Your task to perform on an android device: open app "Instagram" (install if not already installed) Image 0: 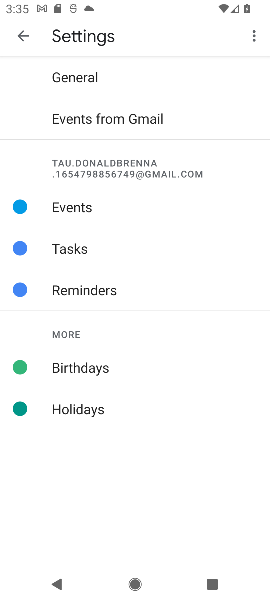
Step 0: press home button
Your task to perform on an android device: open app "Instagram" (install if not already installed) Image 1: 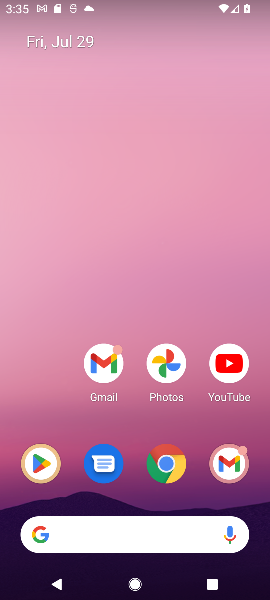
Step 1: drag from (91, 530) to (171, 134)
Your task to perform on an android device: open app "Instagram" (install if not already installed) Image 2: 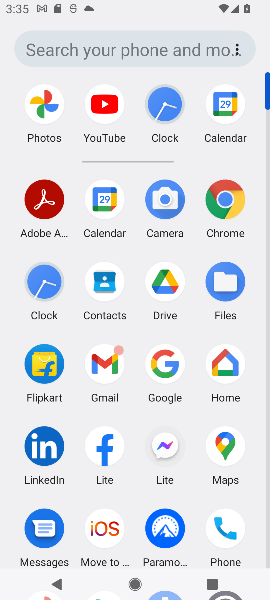
Step 2: drag from (133, 450) to (149, 265)
Your task to perform on an android device: open app "Instagram" (install if not already installed) Image 3: 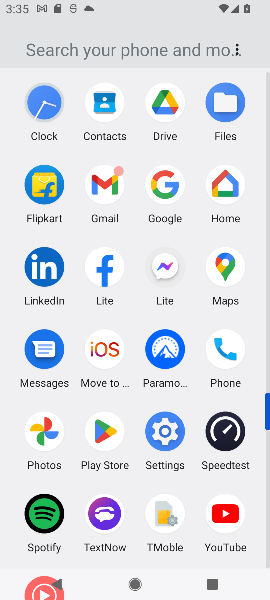
Step 3: click (101, 434)
Your task to perform on an android device: open app "Instagram" (install if not already installed) Image 4: 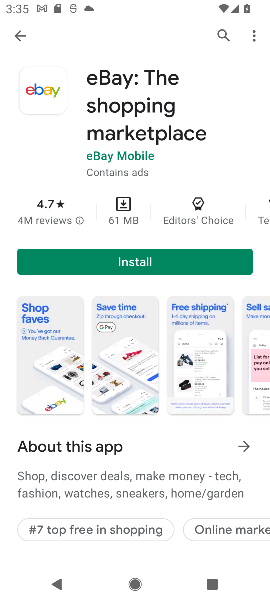
Step 4: click (221, 36)
Your task to perform on an android device: open app "Instagram" (install if not already installed) Image 5: 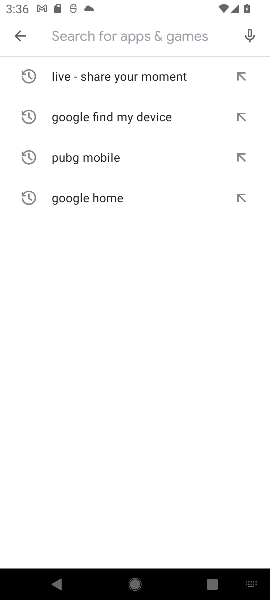
Step 5: type "Instagram"
Your task to perform on an android device: open app "Instagram" (install if not already installed) Image 6: 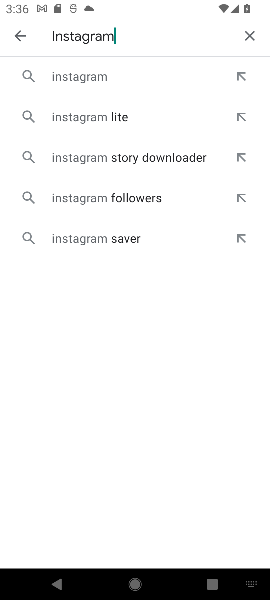
Step 6: click (94, 78)
Your task to perform on an android device: open app "Instagram" (install if not already installed) Image 7: 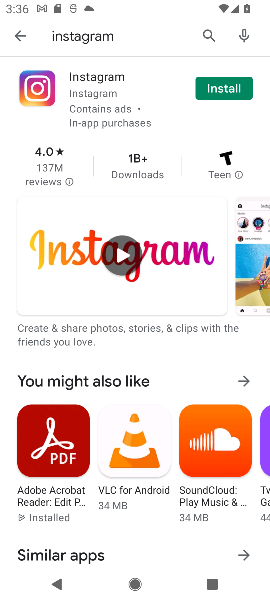
Step 7: click (220, 90)
Your task to perform on an android device: open app "Instagram" (install if not already installed) Image 8: 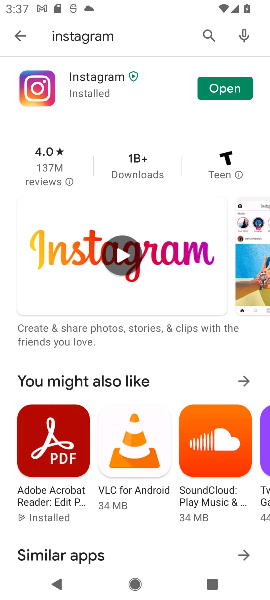
Step 8: click (220, 90)
Your task to perform on an android device: open app "Instagram" (install if not already installed) Image 9: 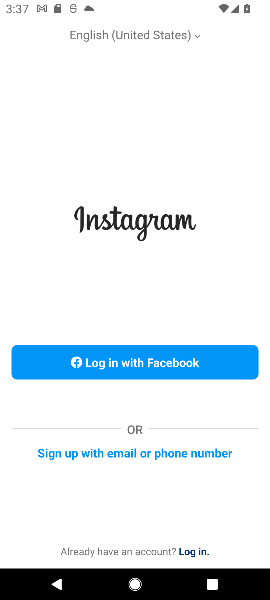
Step 9: task complete